Your task to perform on an android device: change notifications settings Image 0: 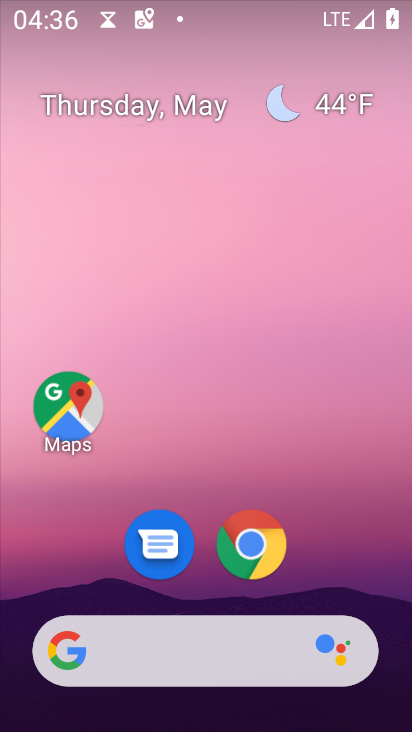
Step 0: drag from (322, 587) to (323, 96)
Your task to perform on an android device: change notifications settings Image 1: 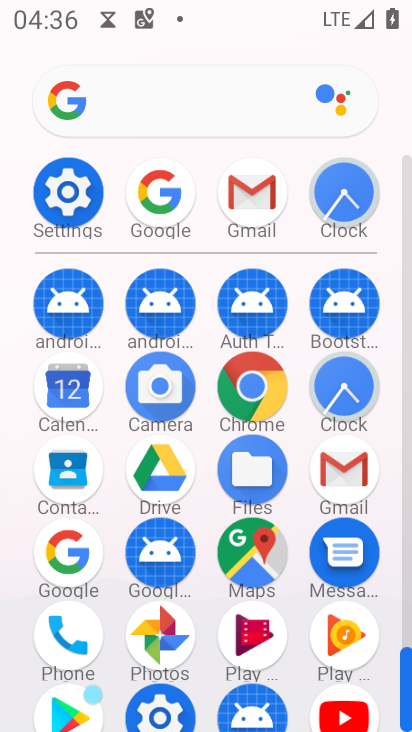
Step 1: click (87, 190)
Your task to perform on an android device: change notifications settings Image 2: 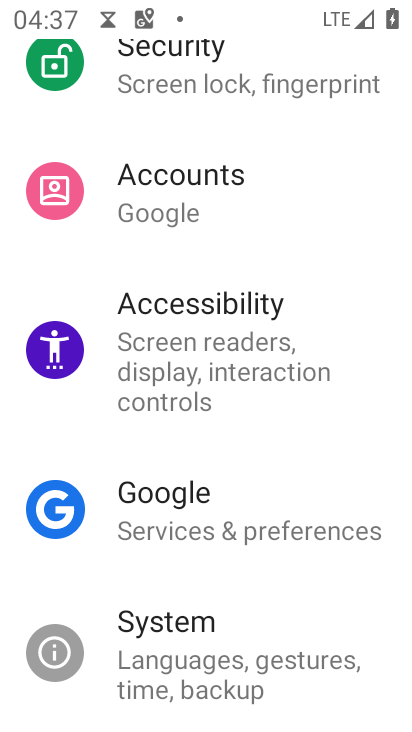
Step 2: drag from (187, 264) to (202, 538)
Your task to perform on an android device: change notifications settings Image 3: 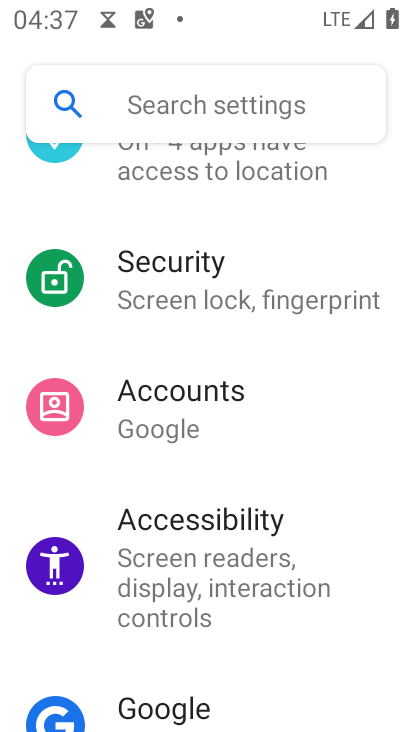
Step 3: drag from (208, 322) to (208, 519)
Your task to perform on an android device: change notifications settings Image 4: 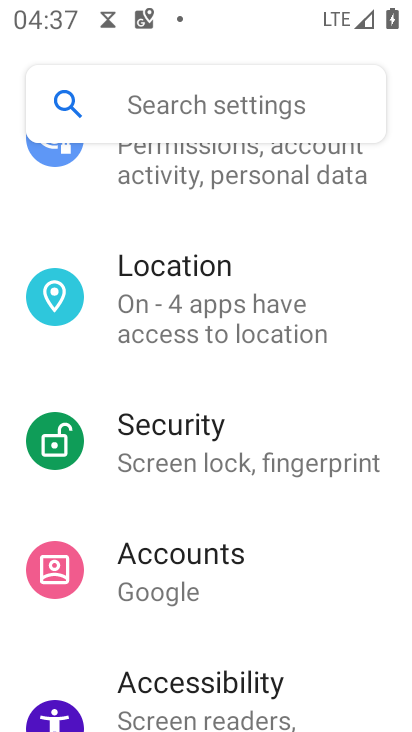
Step 4: drag from (240, 331) to (248, 490)
Your task to perform on an android device: change notifications settings Image 5: 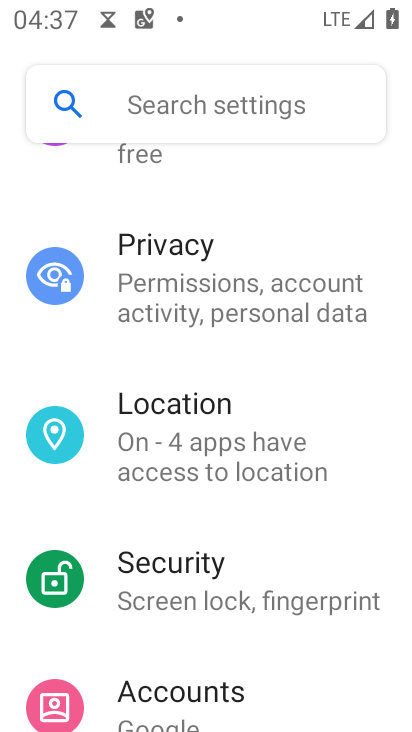
Step 5: drag from (302, 284) to (263, 480)
Your task to perform on an android device: change notifications settings Image 6: 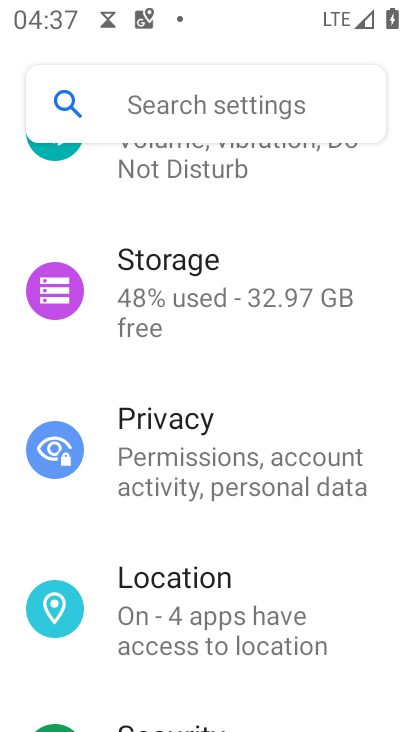
Step 6: drag from (237, 279) to (243, 480)
Your task to perform on an android device: change notifications settings Image 7: 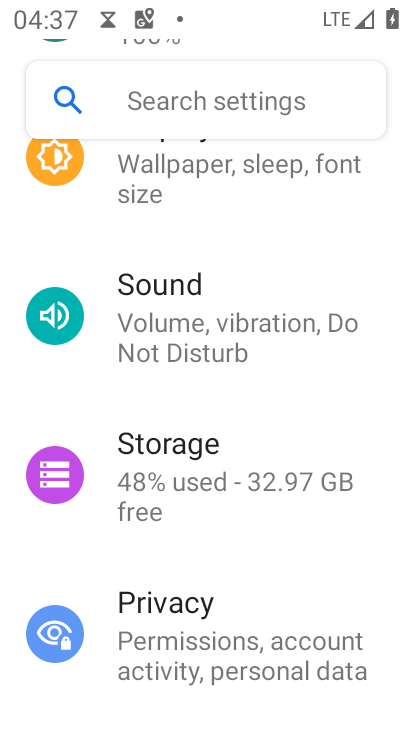
Step 7: drag from (286, 308) to (289, 473)
Your task to perform on an android device: change notifications settings Image 8: 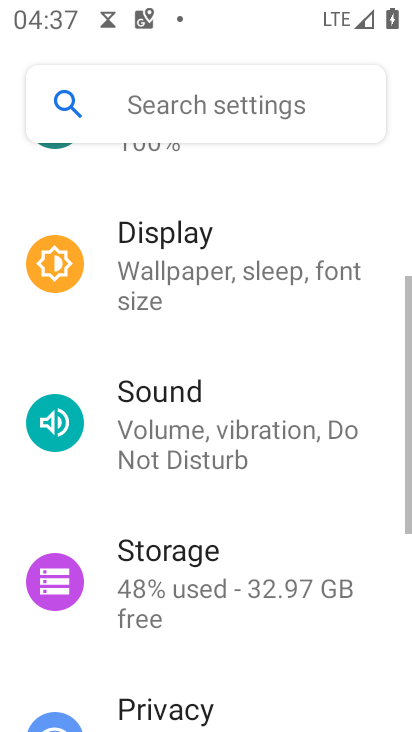
Step 8: drag from (272, 422) to (262, 484)
Your task to perform on an android device: change notifications settings Image 9: 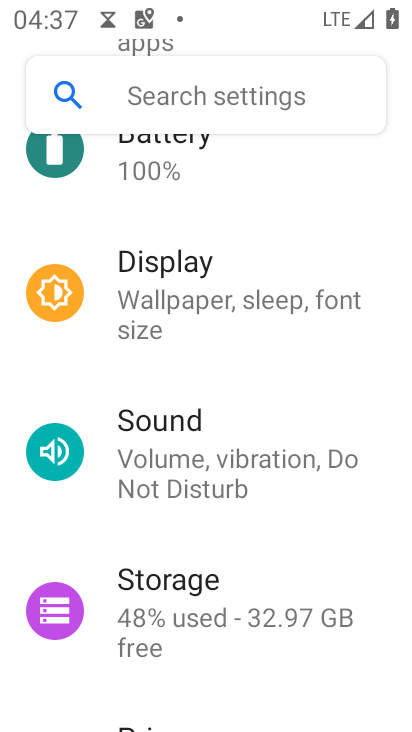
Step 9: drag from (274, 263) to (258, 442)
Your task to perform on an android device: change notifications settings Image 10: 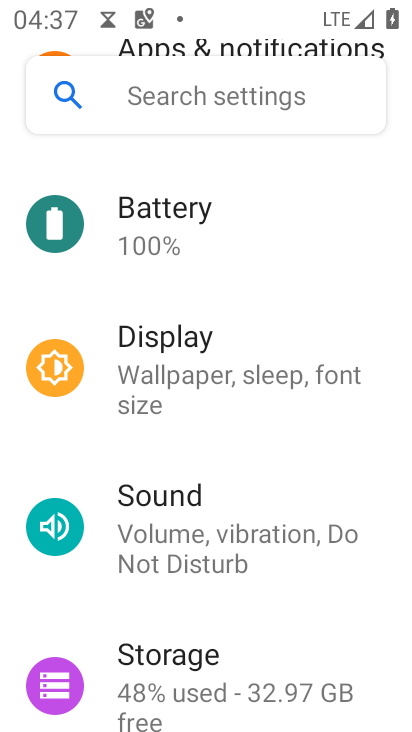
Step 10: drag from (245, 399) to (246, 479)
Your task to perform on an android device: change notifications settings Image 11: 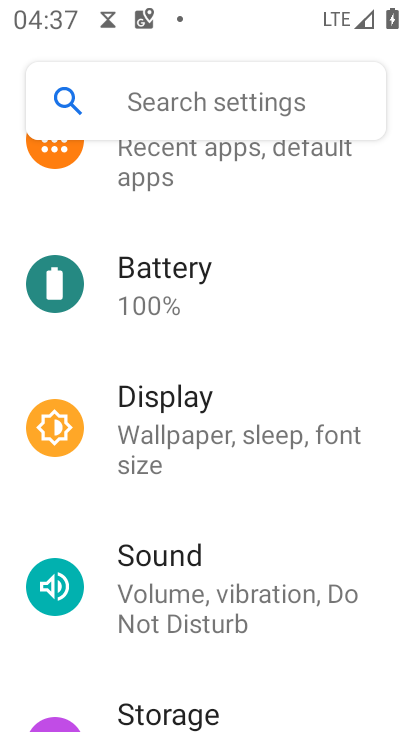
Step 11: click (263, 171)
Your task to perform on an android device: change notifications settings Image 12: 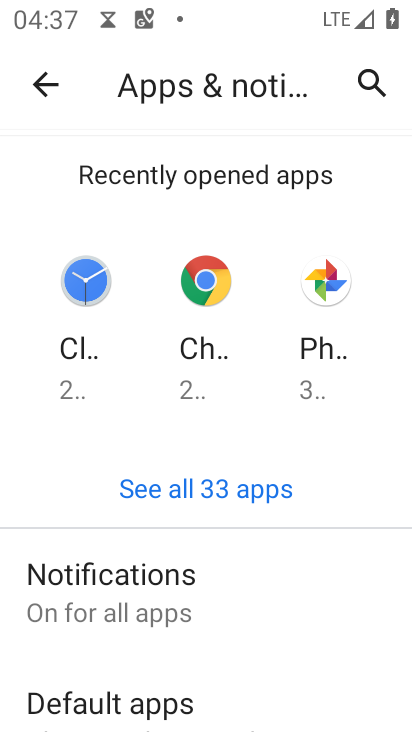
Step 12: click (133, 584)
Your task to perform on an android device: change notifications settings Image 13: 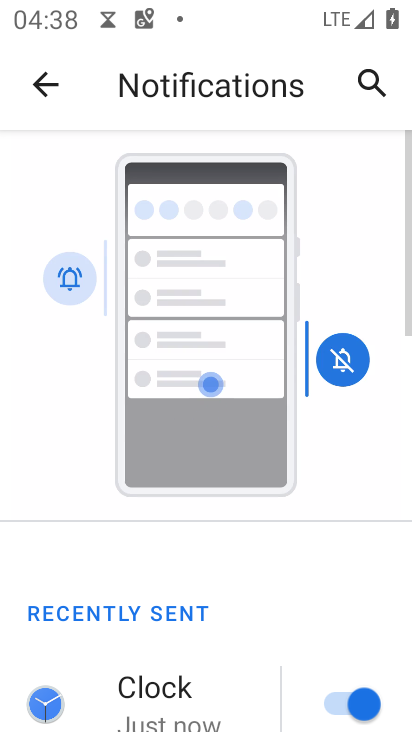
Step 13: drag from (154, 612) to (226, 200)
Your task to perform on an android device: change notifications settings Image 14: 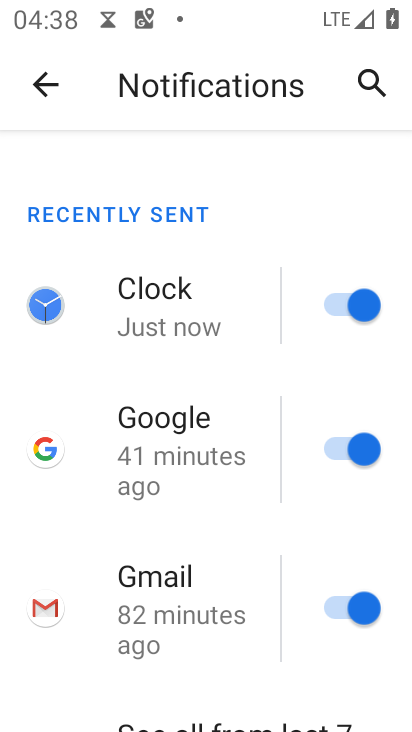
Step 14: drag from (206, 604) to (276, 168)
Your task to perform on an android device: change notifications settings Image 15: 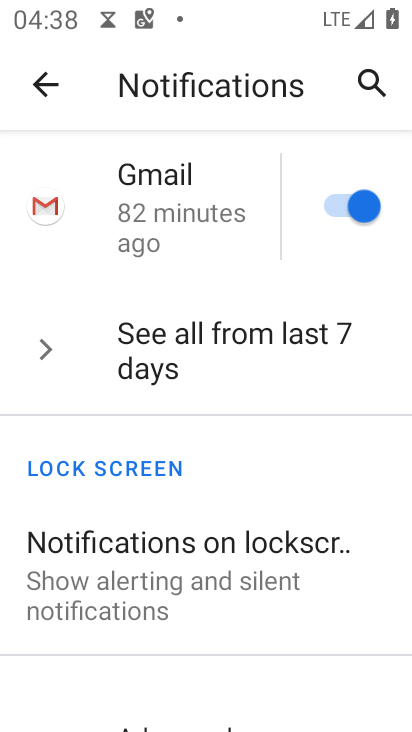
Step 15: drag from (224, 601) to (257, 374)
Your task to perform on an android device: change notifications settings Image 16: 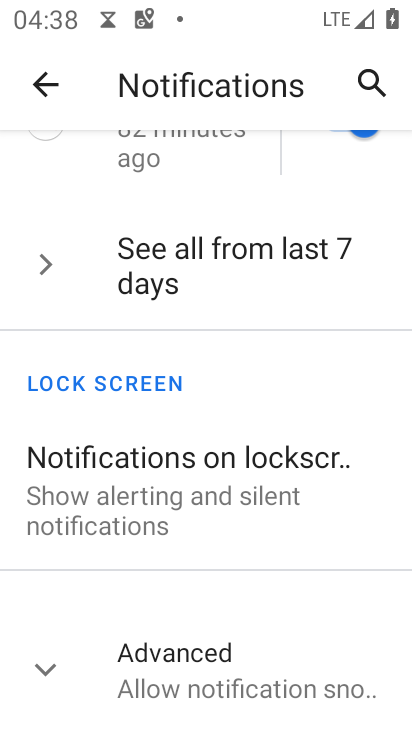
Step 16: click (240, 291)
Your task to perform on an android device: change notifications settings Image 17: 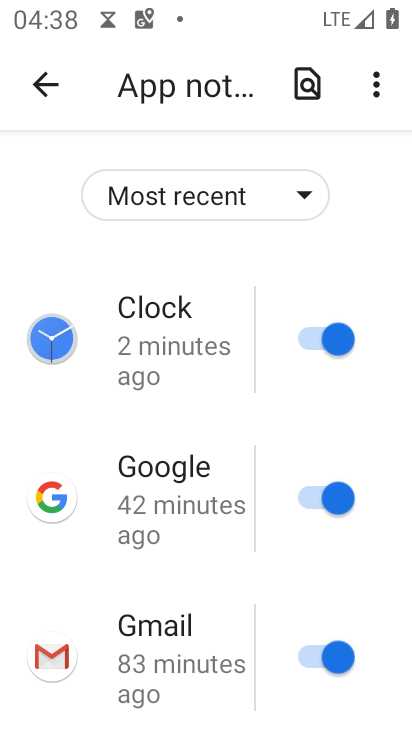
Step 17: click (313, 341)
Your task to perform on an android device: change notifications settings Image 18: 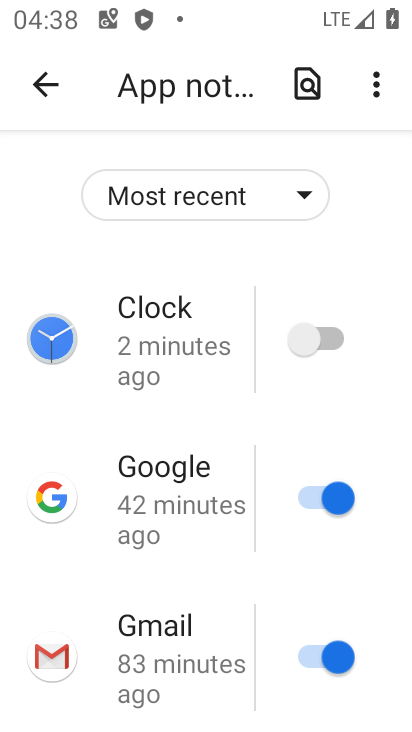
Step 18: click (305, 500)
Your task to perform on an android device: change notifications settings Image 19: 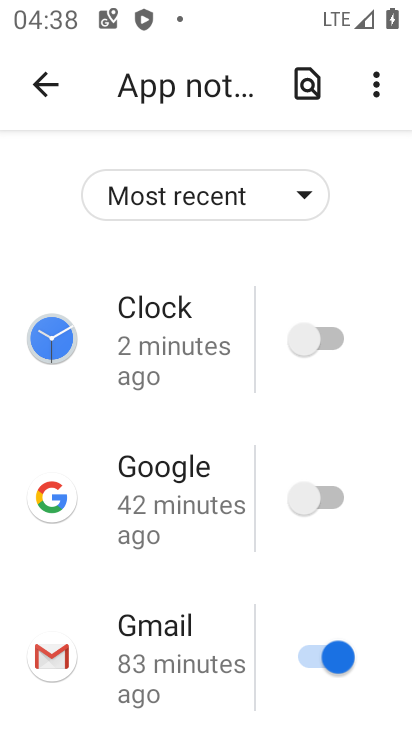
Step 19: click (307, 656)
Your task to perform on an android device: change notifications settings Image 20: 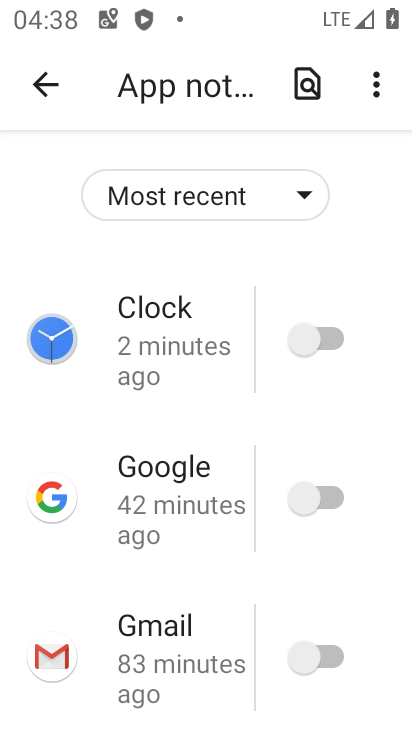
Step 20: drag from (212, 692) to (272, 296)
Your task to perform on an android device: change notifications settings Image 21: 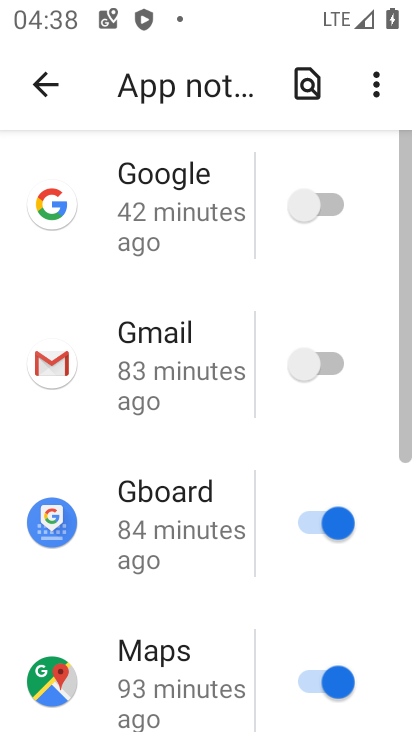
Step 21: drag from (225, 613) to (268, 244)
Your task to perform on an android device: change notifications settings Image 22: 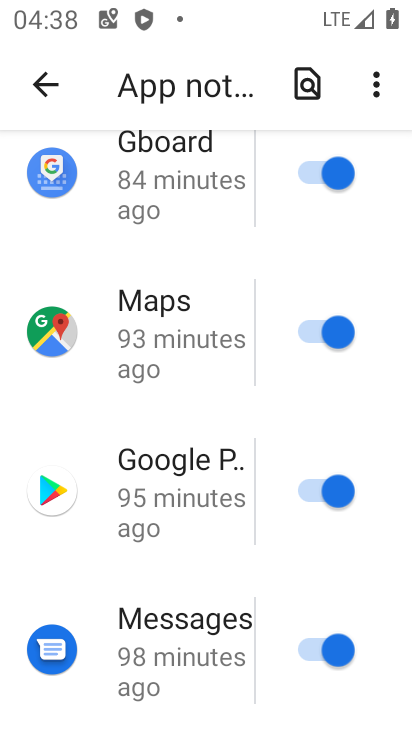
Step 22: click (304, 169)
Your task to perform on an android device: change notifications settings Image 23: 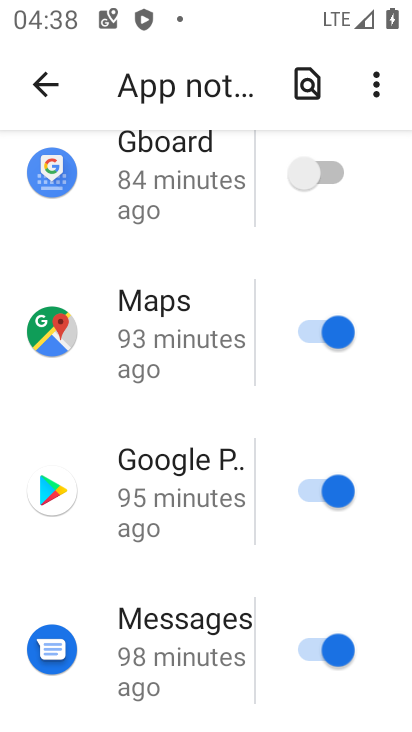
Step 23: click (295, 322)
Your task to perform on an android device: change notifications settings Image 24: 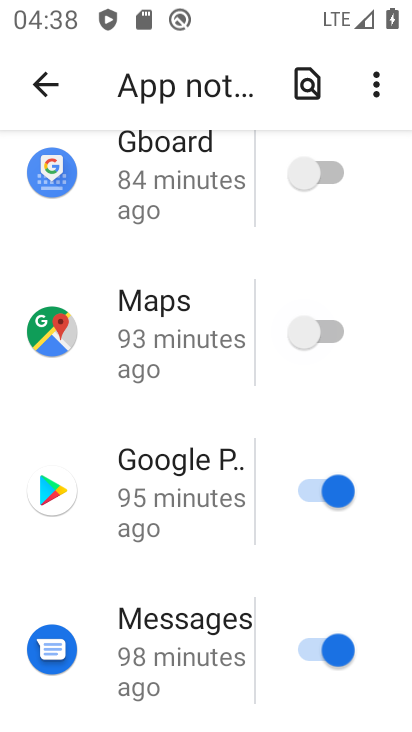
Step 24: click (340, 506)
Your task to perform on an android device: change notifications settings Image 25: 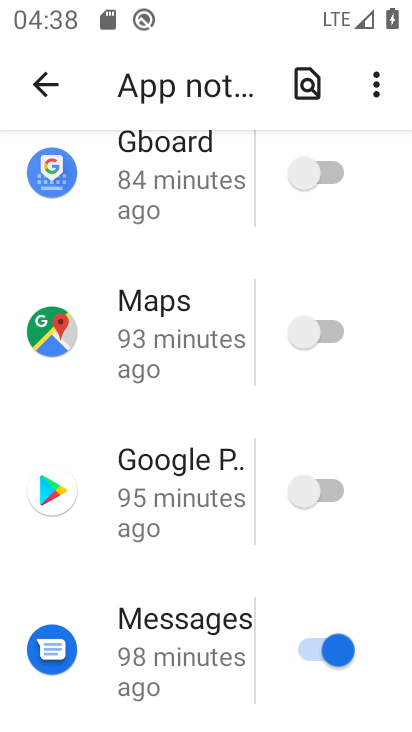
Step 25: click (313, 664)
Your task to perform on an android device: change notifications settings Image 26: 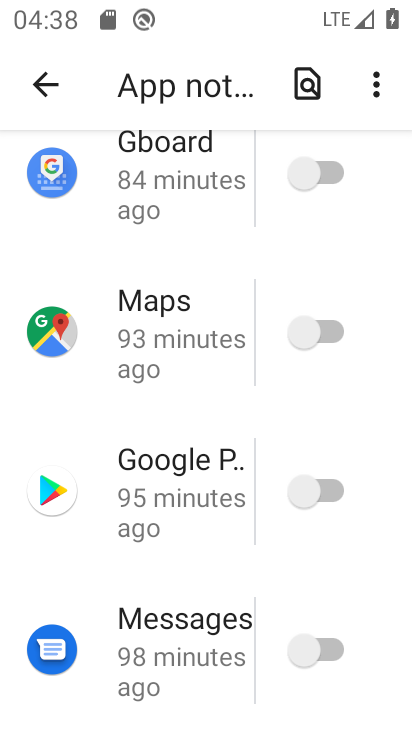
Step 26: drag from (181, 680) to (258, 281)
Your task to perform on an android device: change notifications settings Image 27: 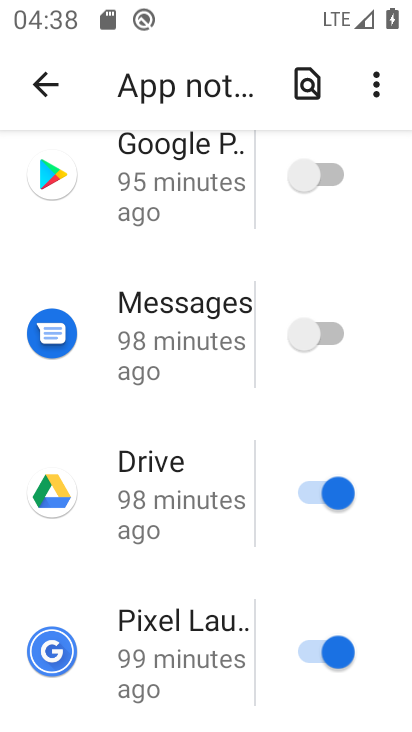
Step 27: click (290, 504)
Your task to perform on an android device: change notifications settings Image 28: 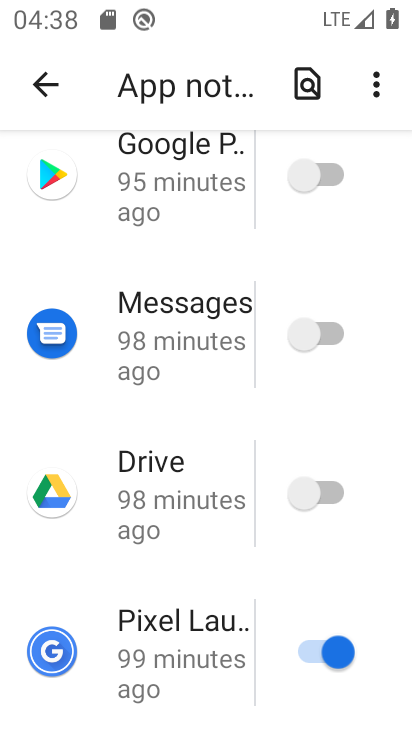
Step 28: click (313, 660)
Your task to perform on an android device: change notifications settings Image 29: 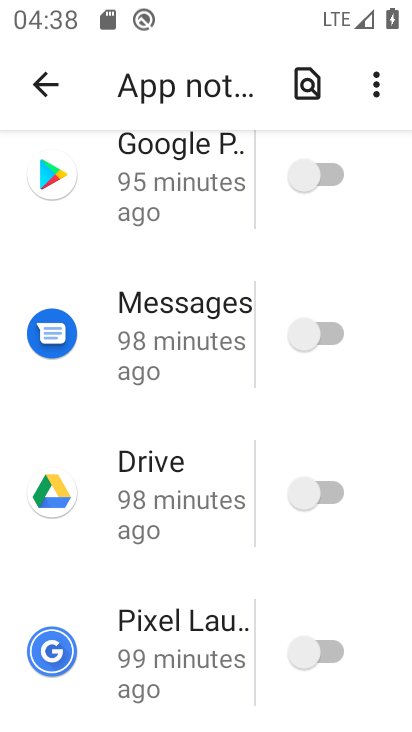
Step 29: click (59, 83)
Your task to perform on an android device: change notifications settings Image 30: 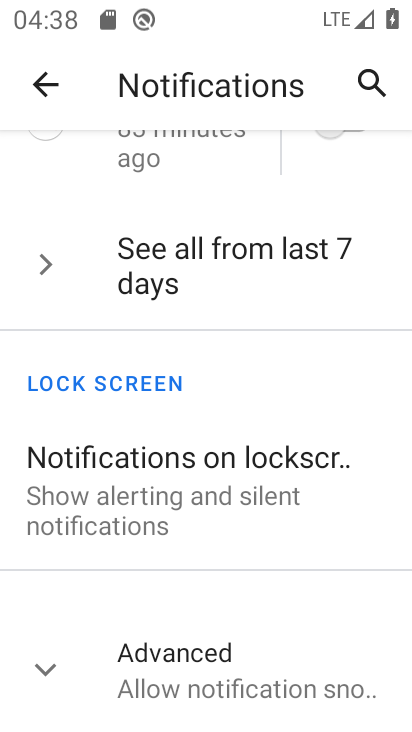
Step 30: click (188, 494)
Your task to perform on an android device: change notifications settings Image 31: 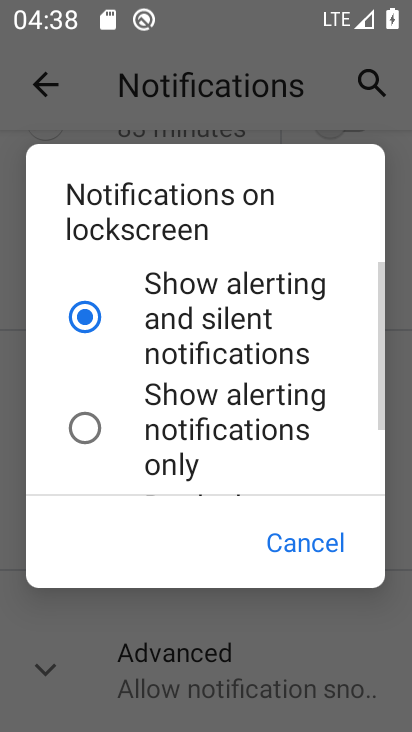
Step 31: click (150, 404)
Your task to perform on an android device: change notifications settings Image 32: 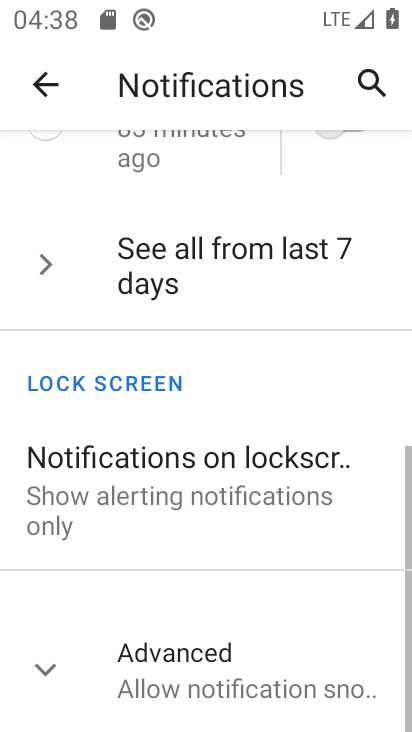
Step 32: click (185, 656)
Your task to perform on an android device: change notifications settings Image 33: 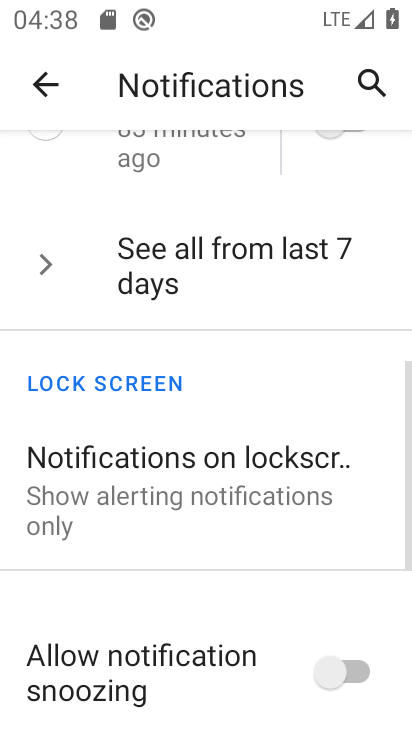
Step 33: drag from (181, 632) to (166, 205)
Your task to perform on an android device: change notifications settings Image 34: 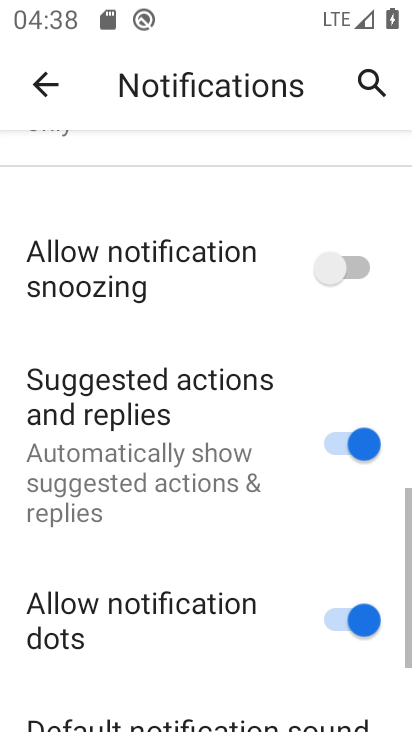
Step 34: click (348, 330)
Your task to perform on an android device: change notifications settings Image 35: 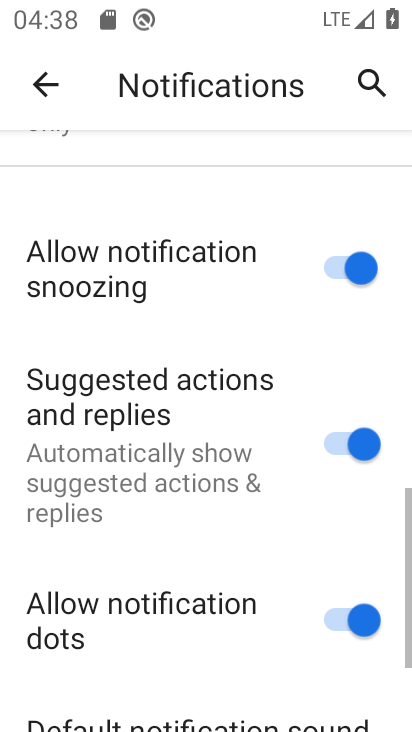
Step 35: click (363, 453)
Your task to perform on an android device: change notifications settings Image 36: 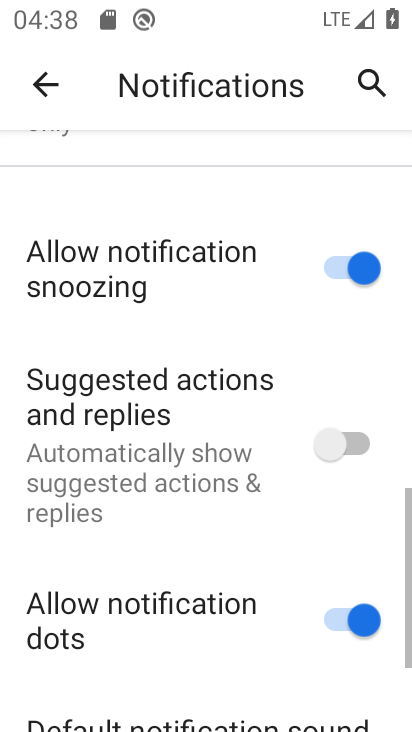
Step 36: click (350, 619)
Your task to perform on an android device: change notifications settings Image 37: 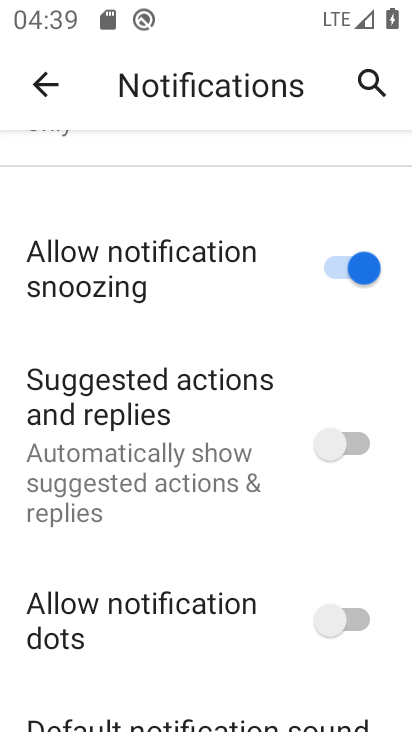
Step 37: task complete